Your task to perform on an android device: turn off notifications in google photos Image 0: 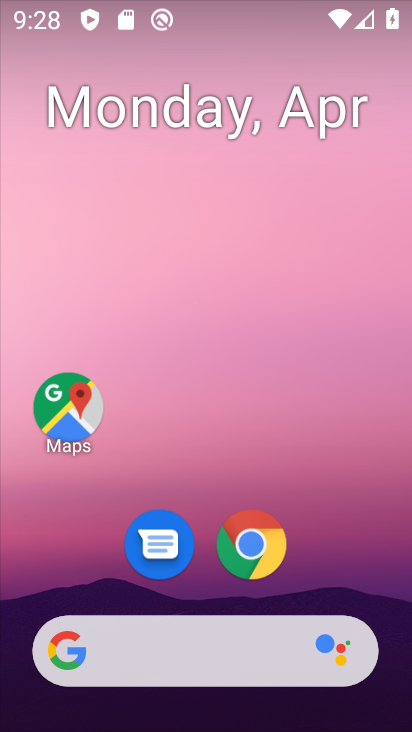
Step 0: drag from (393, 572) to (355, 273)
Your task to perform on an android device: turn off notifications in google photos Image 1: 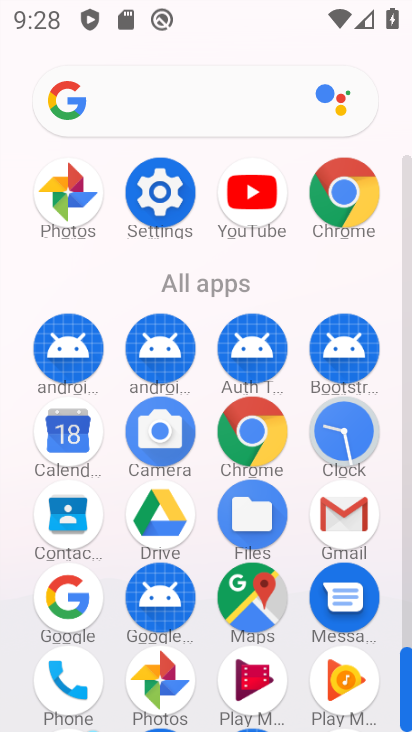
Step 1: click (179, 674)
Your task to perform on an android device: turn off notifications in google photos Image 2: 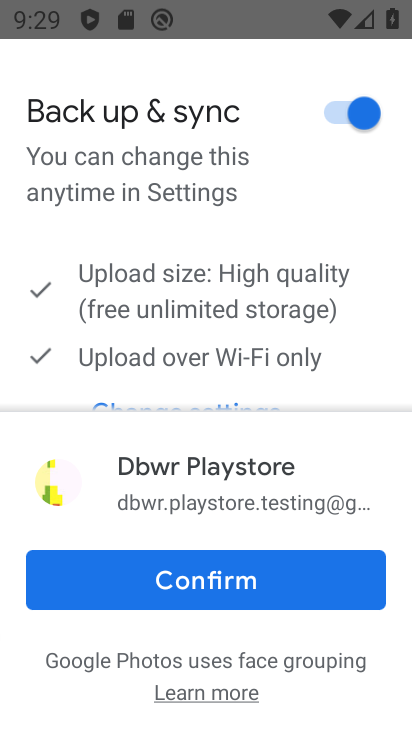
Step 2: click (313, 602)
Your task to perform on an android device: turn off notifications in google photos Image 3: 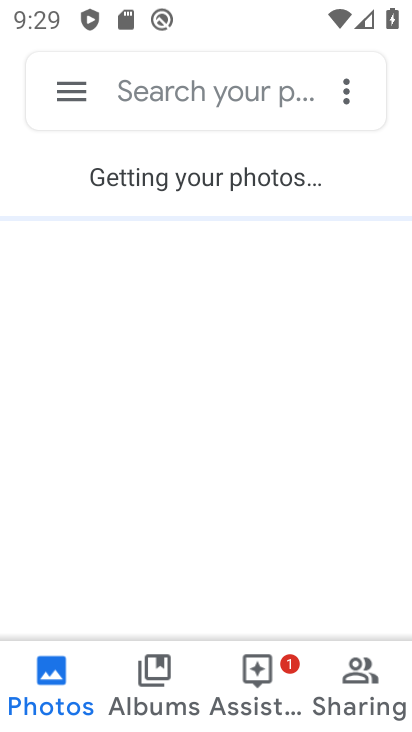
Step 3: click (78, 98)
Your task to perform on an android device: turn off notifications in google photos Image 4: 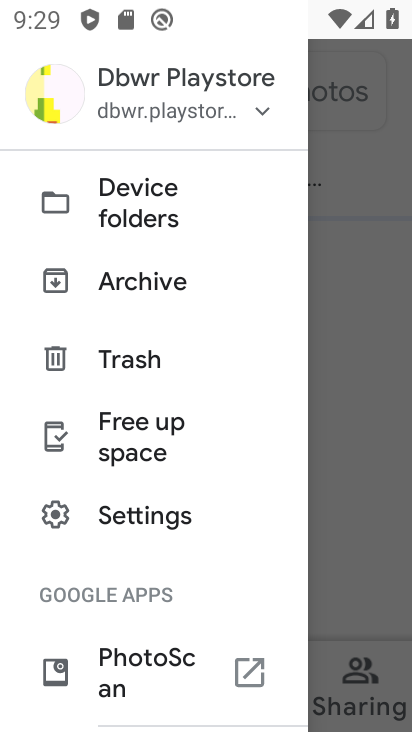
Step 4: click (172, 509)
Your task to perform on an android device: turn off notifications in google photos Image 5: 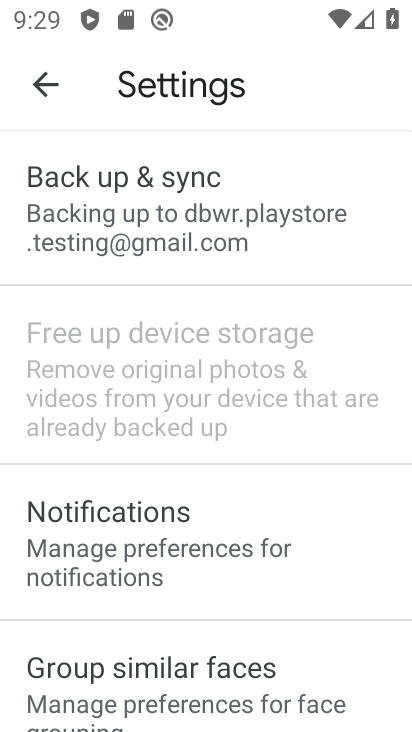
Step 5: click (202, 545)
Your task to perform on an android device: turn off notifications in google photos Image 6: 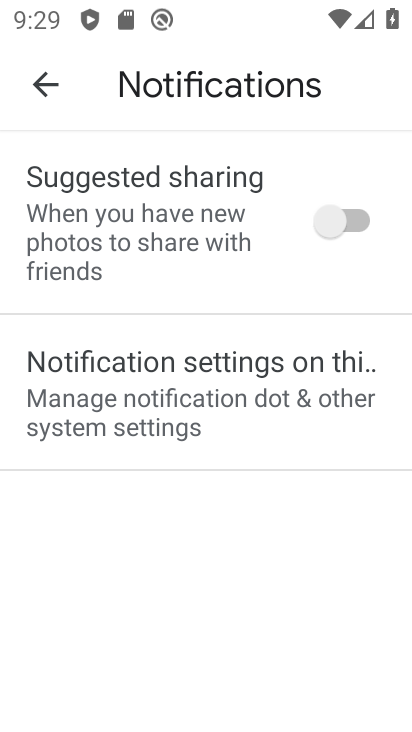
Step 6: click (246, 454)
Your task to perform on an android device: turn off notifications in google photos Image 7: 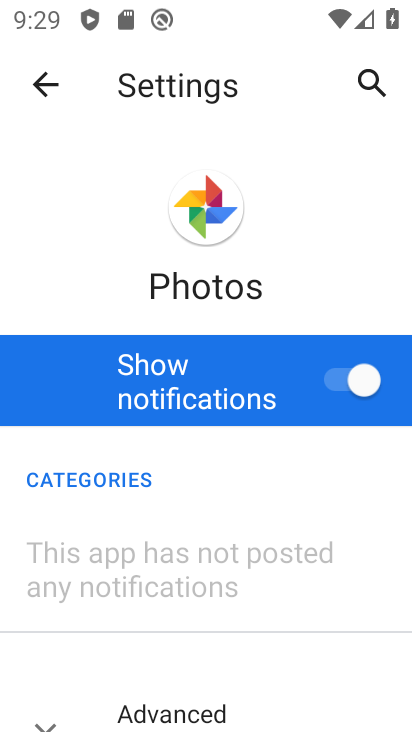
Step 7: drag from (348, 583) to (300, 224)
Your task to perform on an android device: turn off notifications in google photos Image 8: 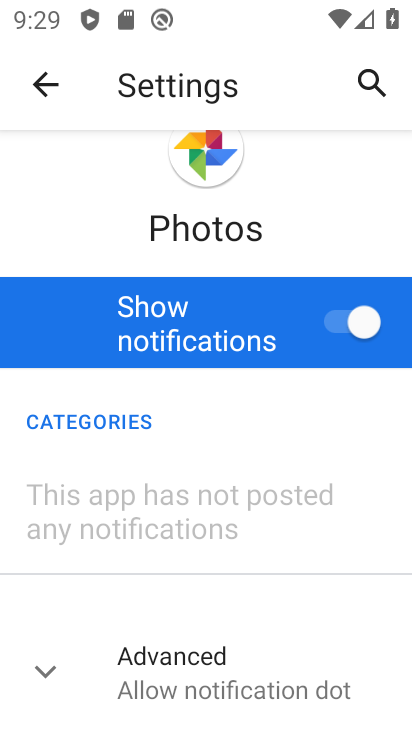
Step 8: click (362, 336)
Your task to perform on an android device: turn off notifications in google photos Image 9: 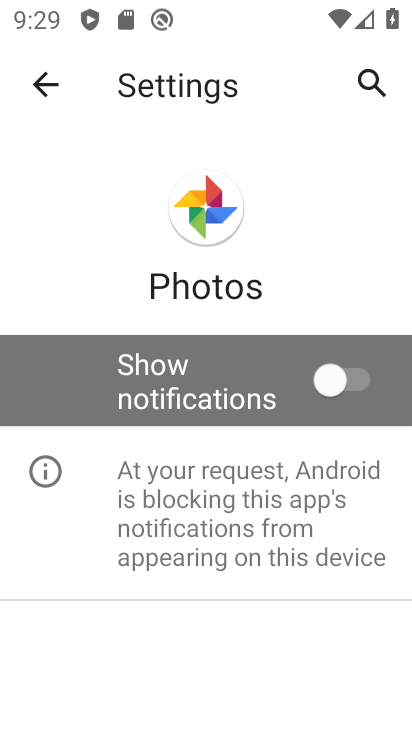
Step 9: task complete